Your task to perform on an android device: Empty the shopping cart on amazon.com. Add "duracell triple a" to the cart on amazon.com, then select checkout. Image 0: 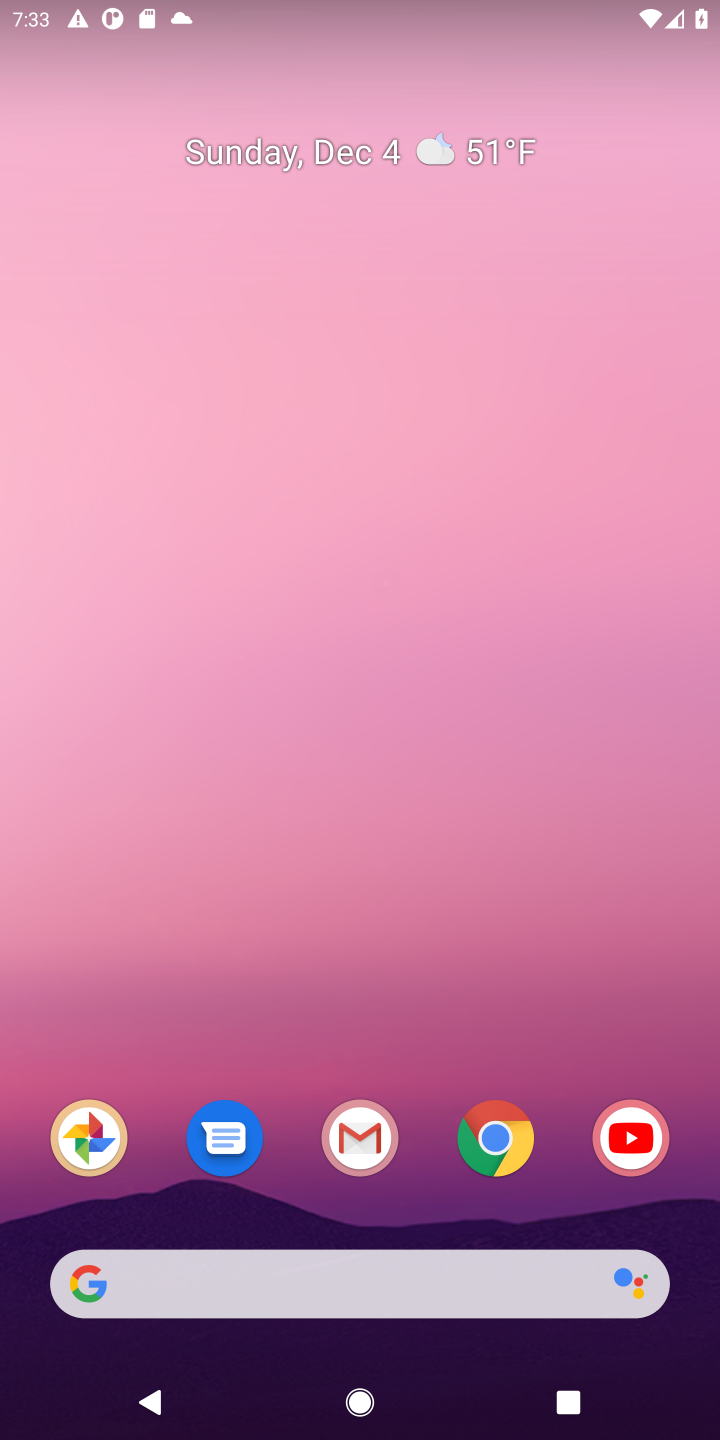
Step 0: click (497, 1146)
Your task to perform on an android device: Empty the shopping cart on amazon.com. Add "duracell triple a" to the cart on amazon.com, then select checkout. Image 1: 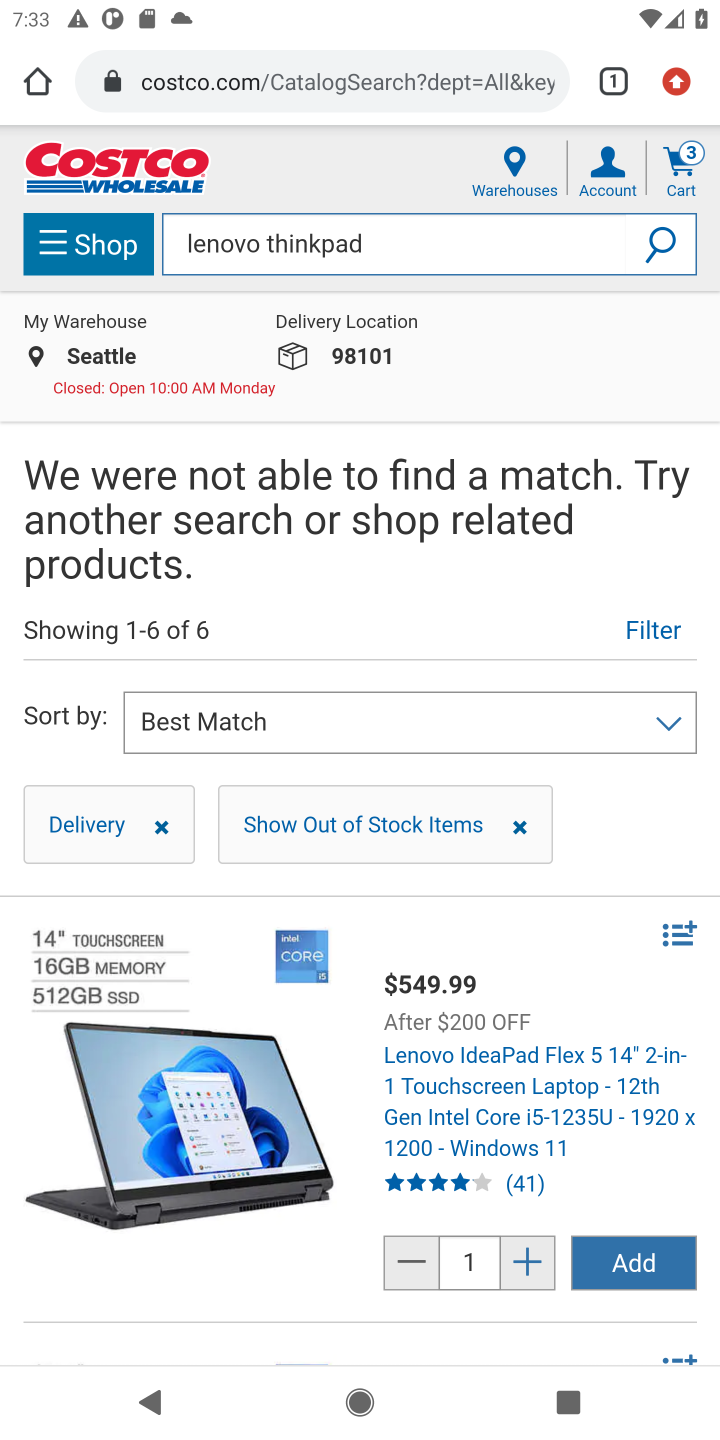
Step 1: click (414, 74)
Your task to perform on an android device: Empty the shopping cart on amazon.com. Add "duracell triple a" to the cart on amazon.com, then select checkout. Image 2: 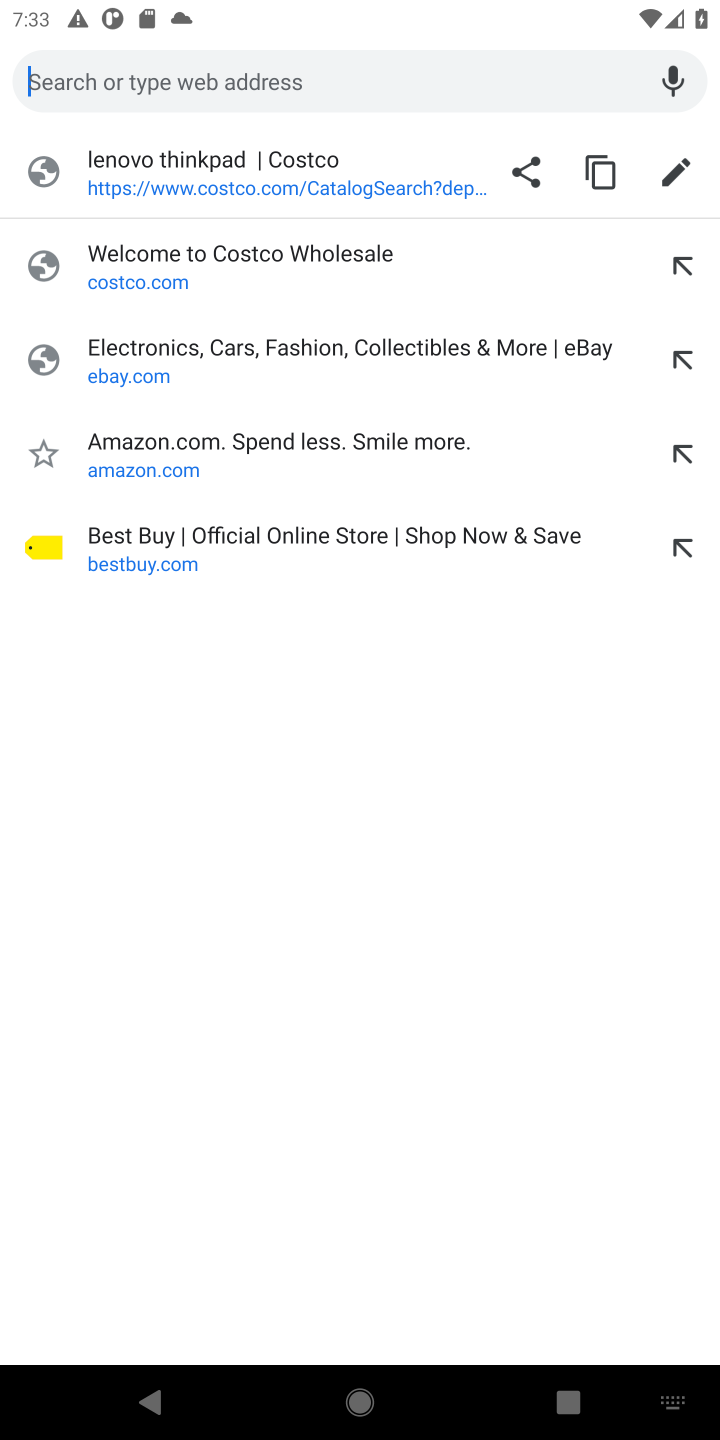
Step 2: click (255, 439)
Your task to perform on an android device: Empty the shopping cart on amazon.com. Add "duracell triple a" to the cart on amazon.com, then select checkout. Image 3: 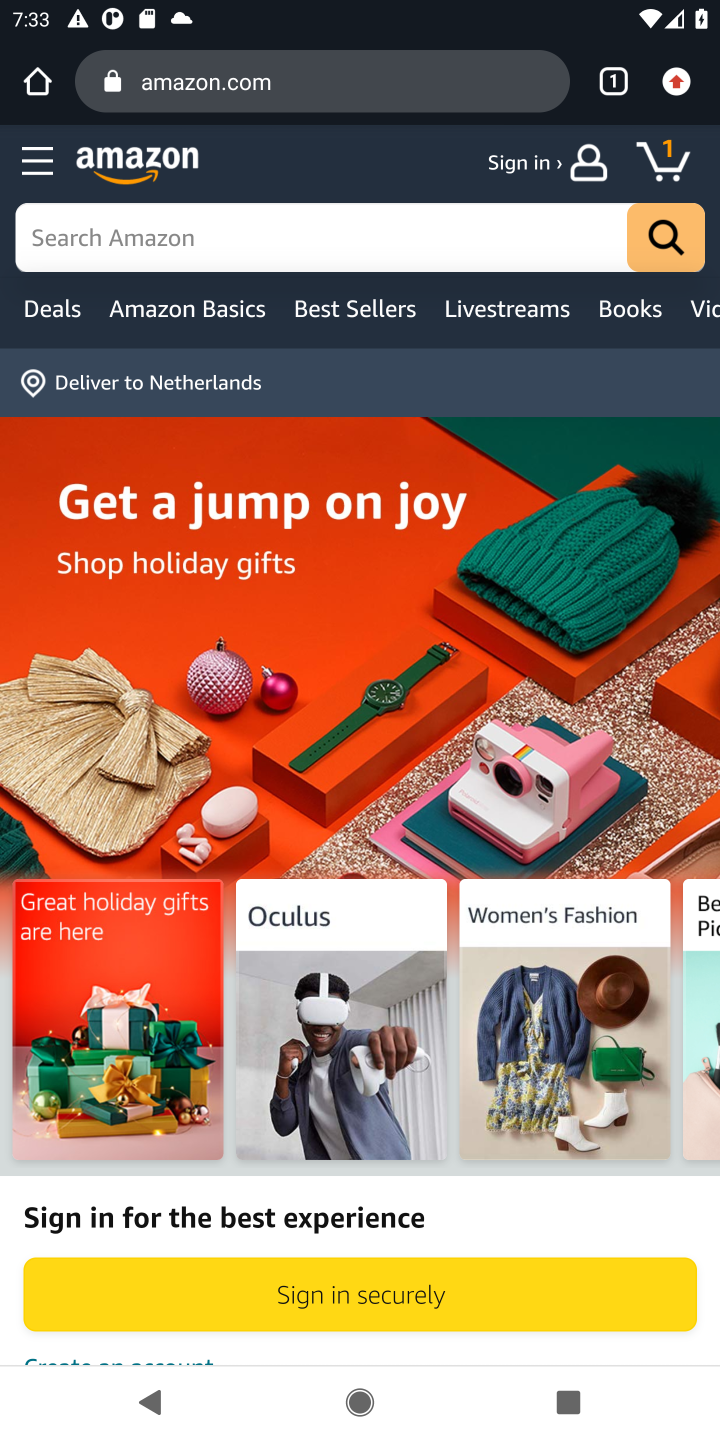
Step 3: click (674, 166)
Your task to perform on an android device: Empty the shopping cart on amazon.com. Add "duracell triple a" to the cart on amazon.com, then select checkout. Image 4: 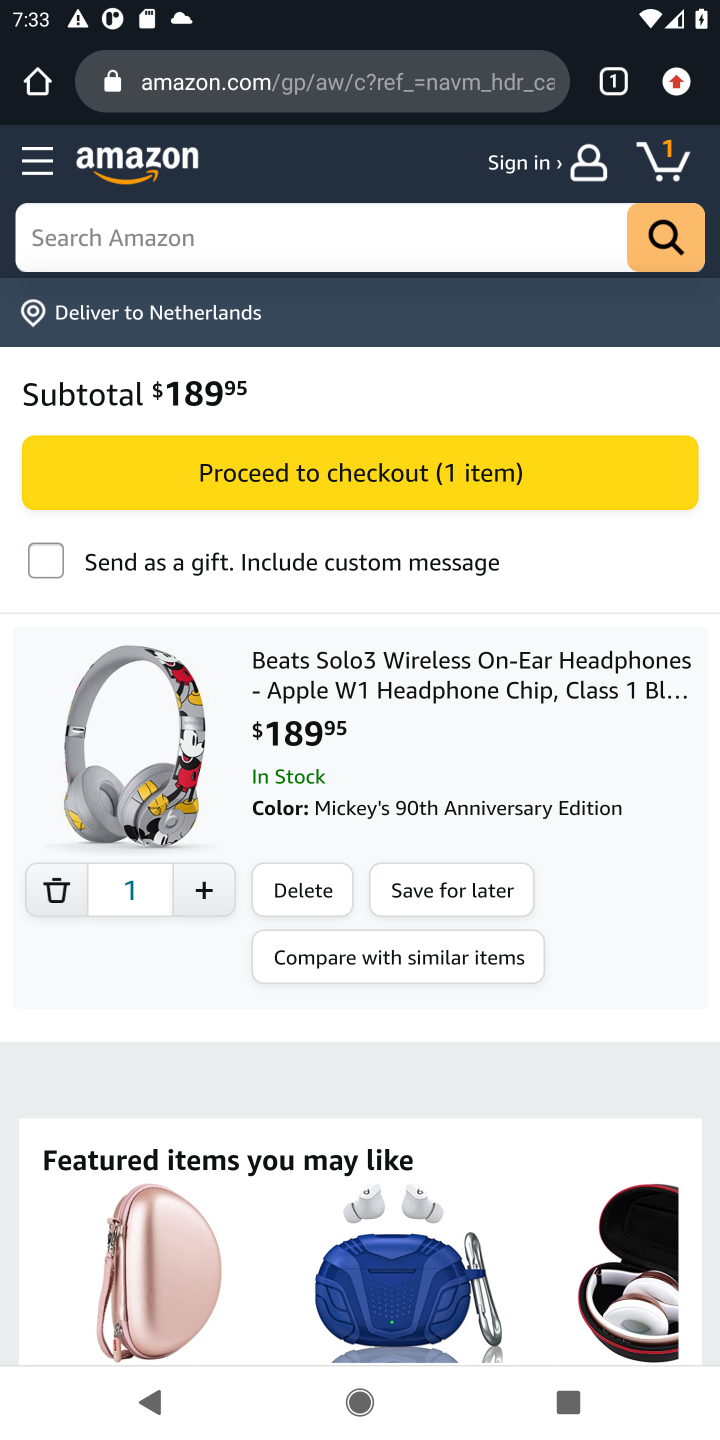
Step 4: click (311, 892)
Your task to perform on an android device: Empty the shopping cart on amazon.com. Add "duracell triple a" to the cart on amazon.com, then select checkout. Image 5: 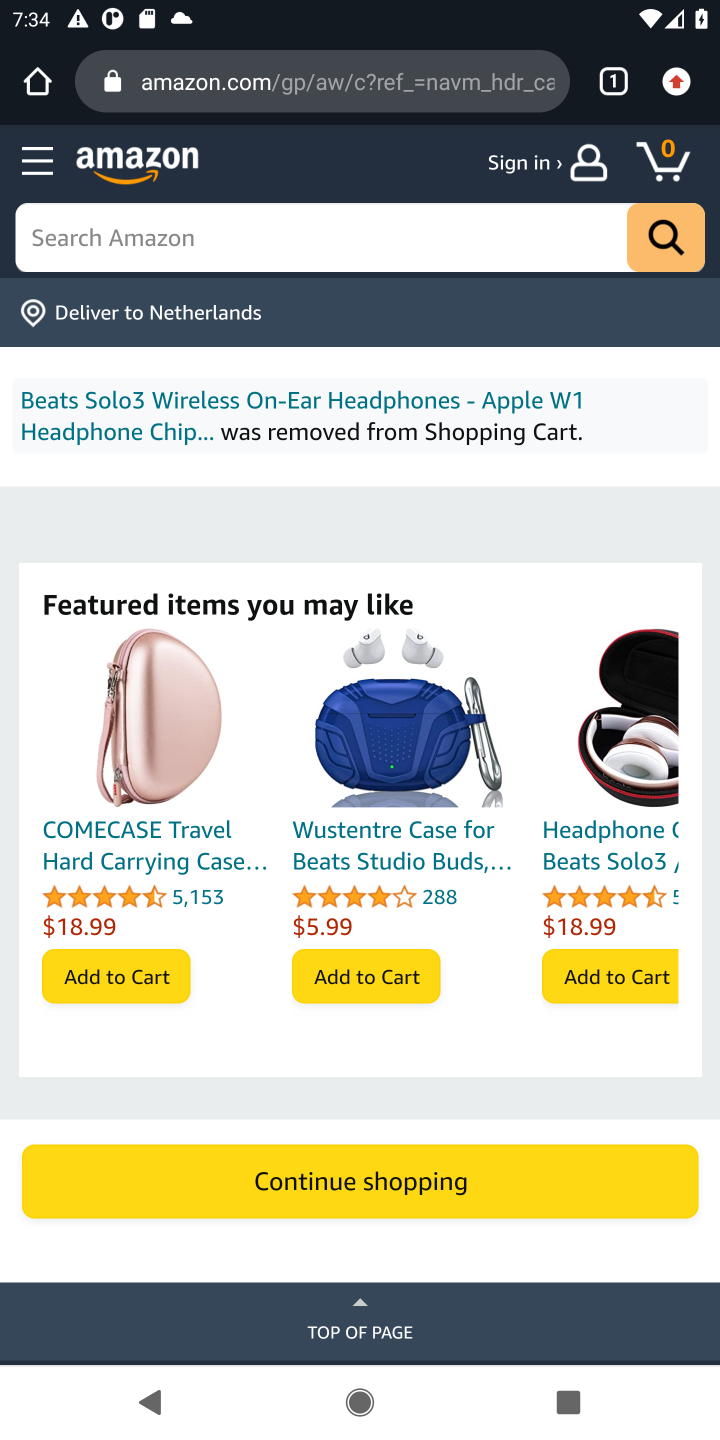
Step 5: click (316, 254)
Your task to perform on an android device: Empty the shopping cart on amazon.com. Add "duracell triple a" to the cart on amazon.com, then select checkout. Image 6: 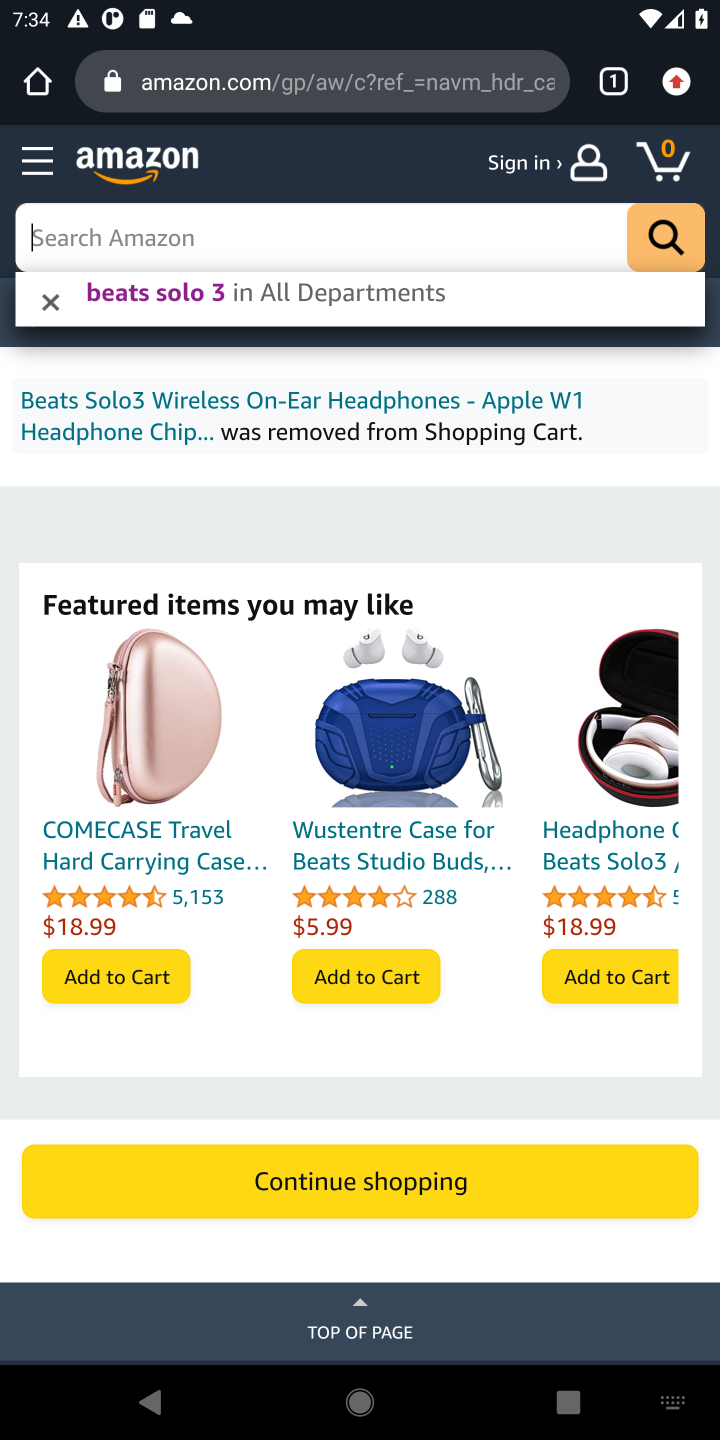
Step 6: type "duracell triple a"
Your task to perform on an android device: Empty the shopping cart on amazon.com. Add "duracell triple a" to the cart on amazon.com, then select checkout. Image 7: 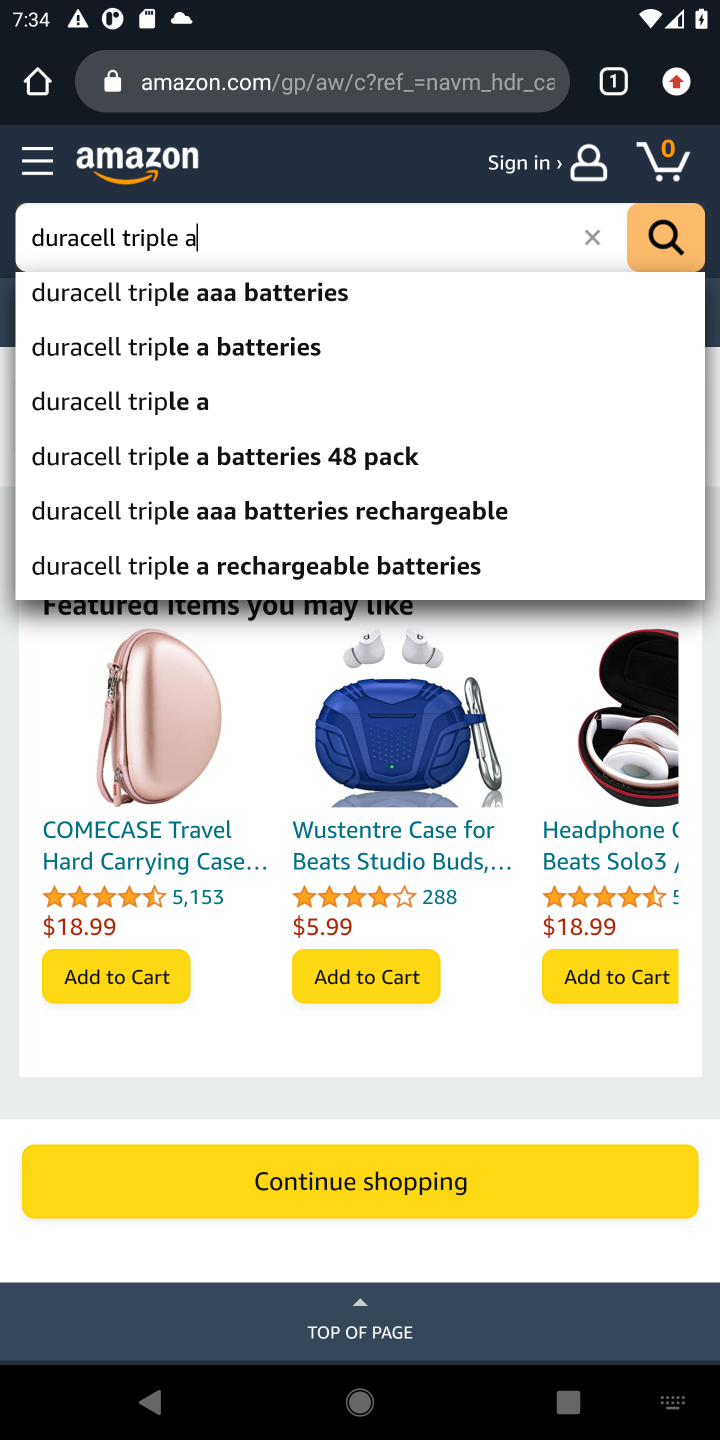
Step 7: press enter
Your task to perform on an android device: Empty the shopping cart on amazon.com. Add "duracell triple a" to the cart on amazon.com, then select checkout. Image 8: 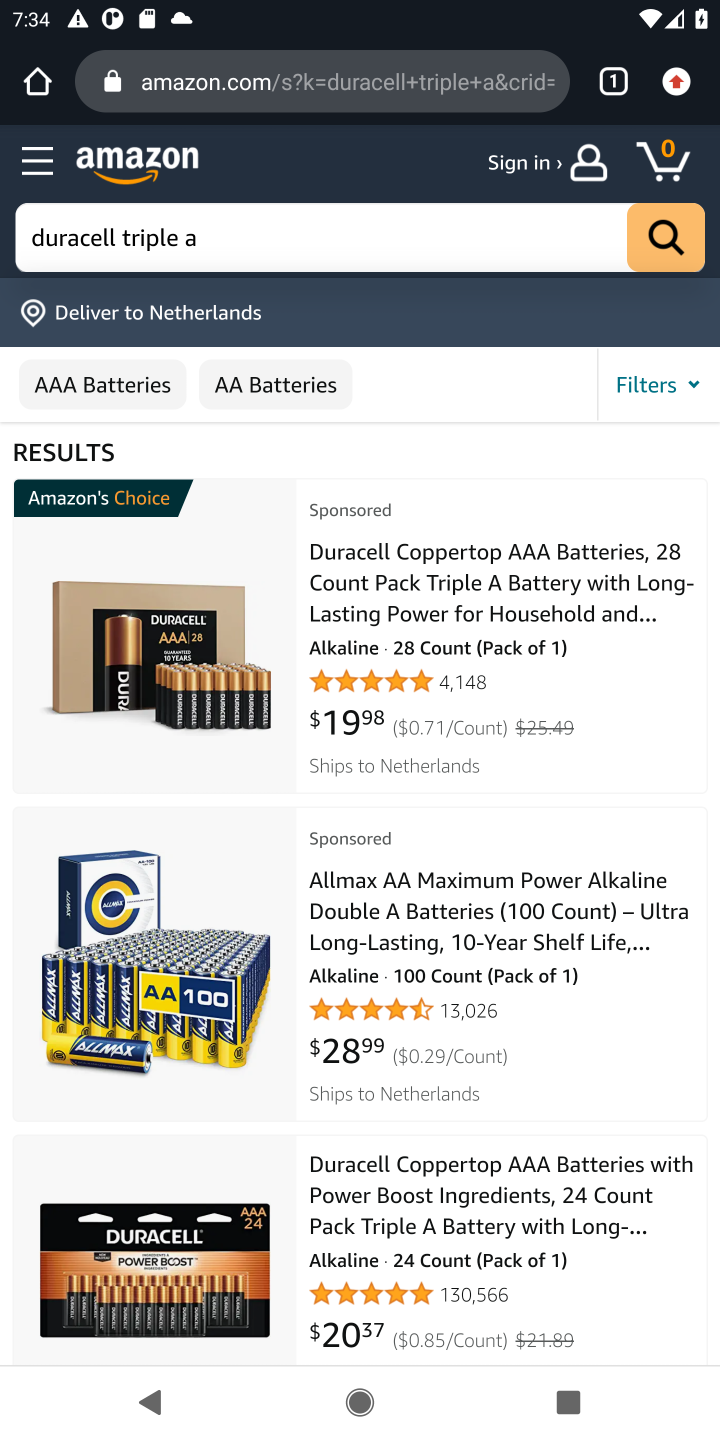
Step 8: click (143, 655)
Your task to perform on an android device: Empty the shopping cart on amazon.com. Add "duracell triple a" to the cart on amazon.com, then select checkout. Image 9: 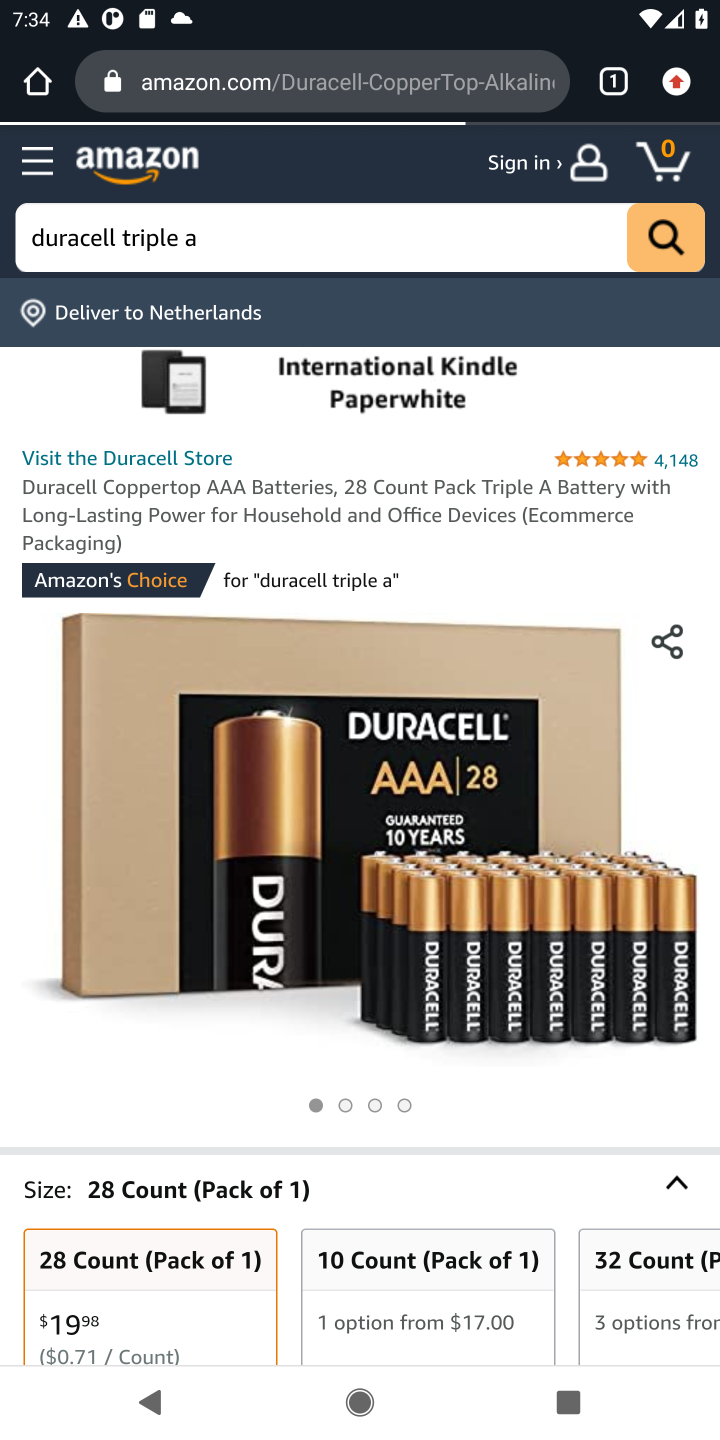
Step 9: drag from (540, 1000) to (541, 333)
Your task to perform on an android device: Empty the shopping cart on amazon.com. Add "duracell triple a" to the cart on amazon.com, then select checkout. Image 10: 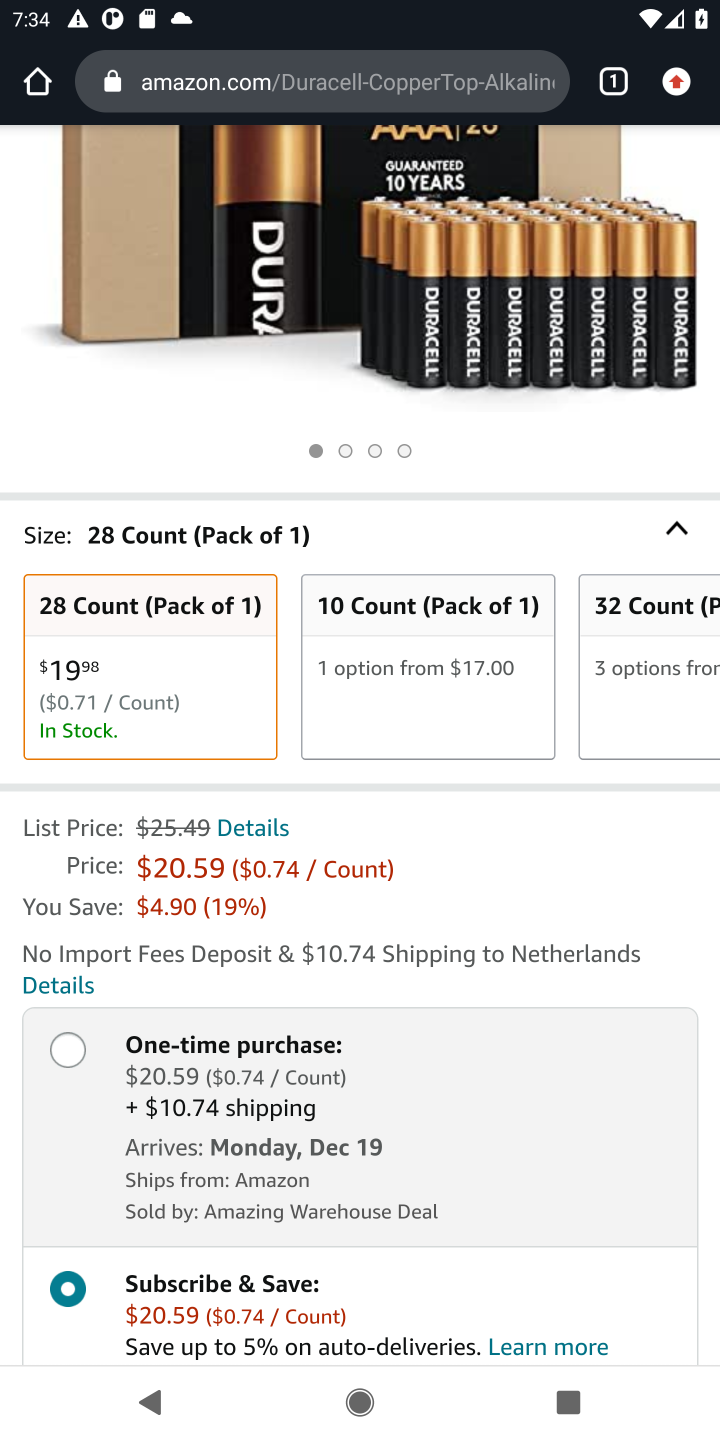
Step 10: drag from (627, 866) to (579, 414)
Your task to perform on an android device: Empty the shopping cart on amazon.com. Add "duracell triple a" to the cart on amazon.com, then select checkout. Image 11: 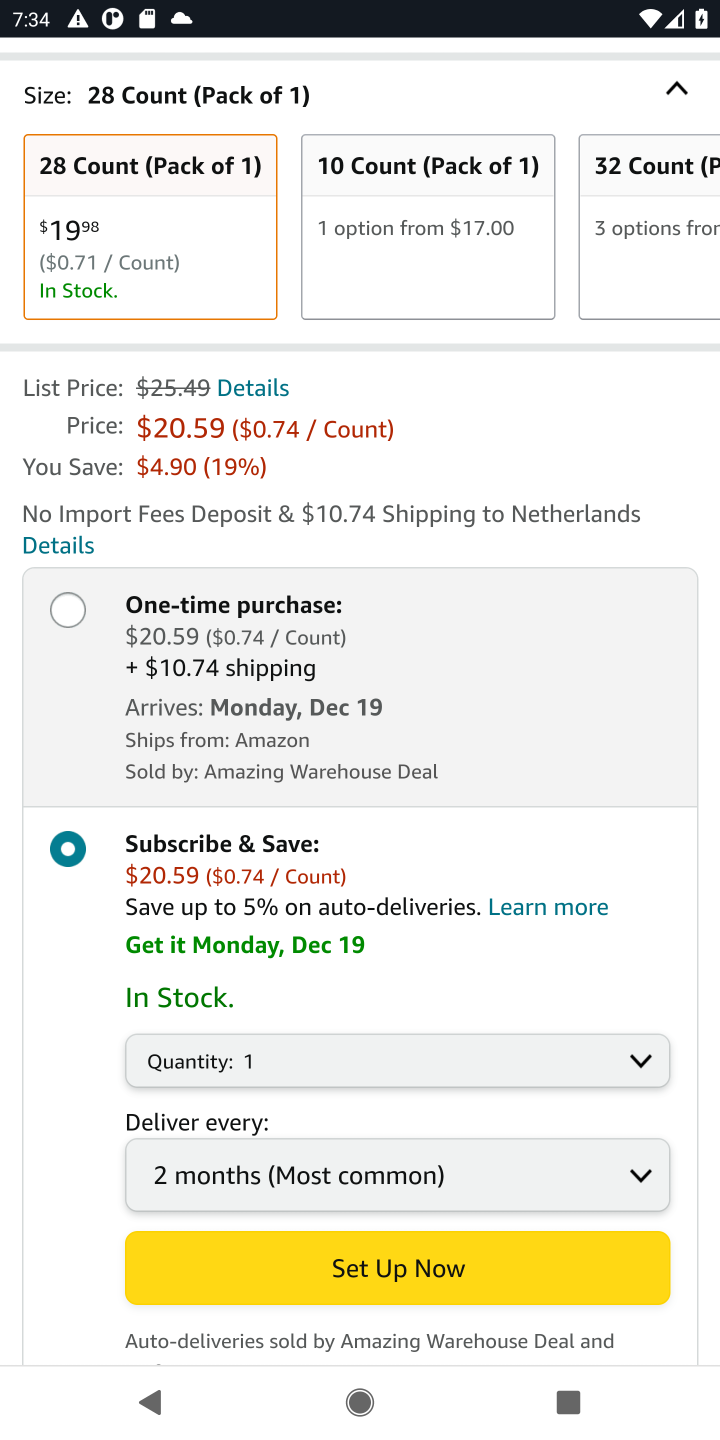
Step 11: press back button
Your task to perform on an android device: Empty the shopping cart on amazon.com. Add "duracell triple a" to the cart on amazon.com, then select checkout. Image 12: 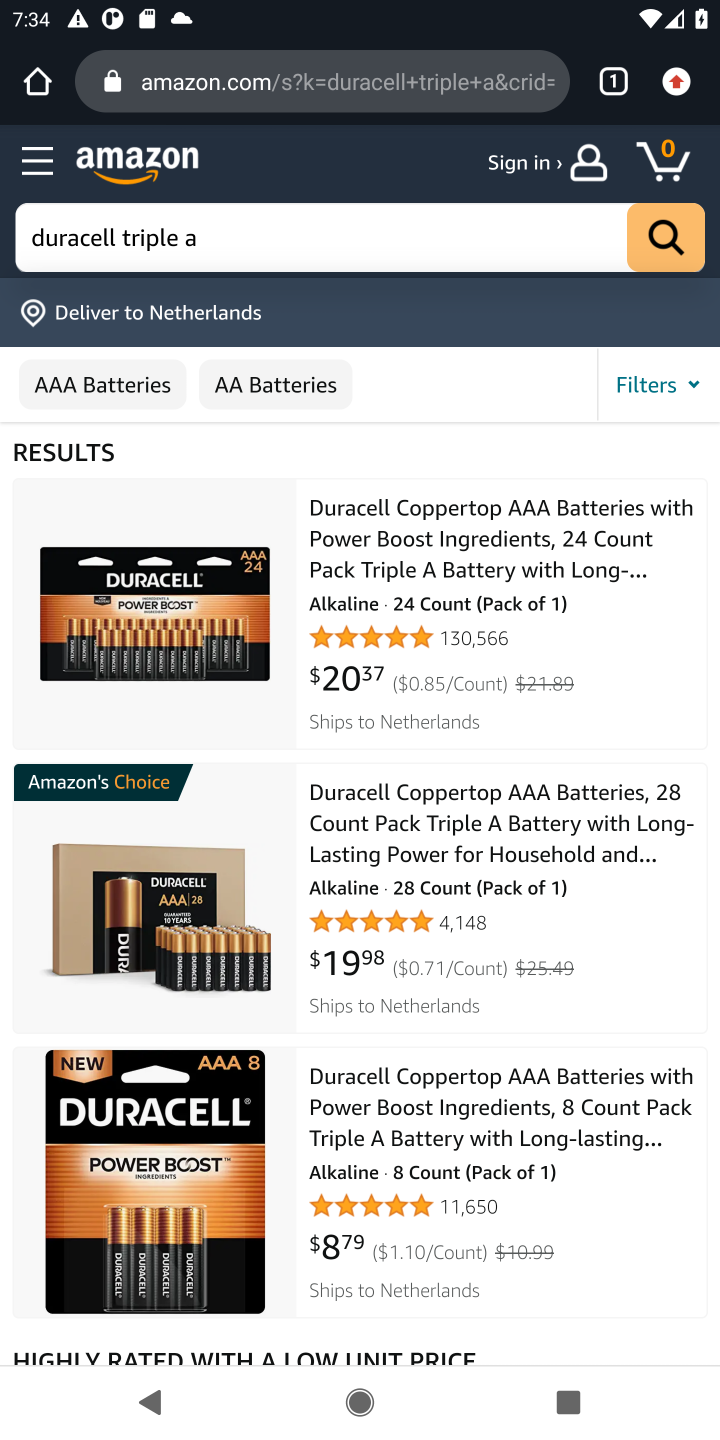
Step 12: click (106, 896)
Your task to perform on an android device: Empty the shopping cart on amazon.com. Add "duracell triple a" to the cart on amazon.com, then select checkout. Image 13: 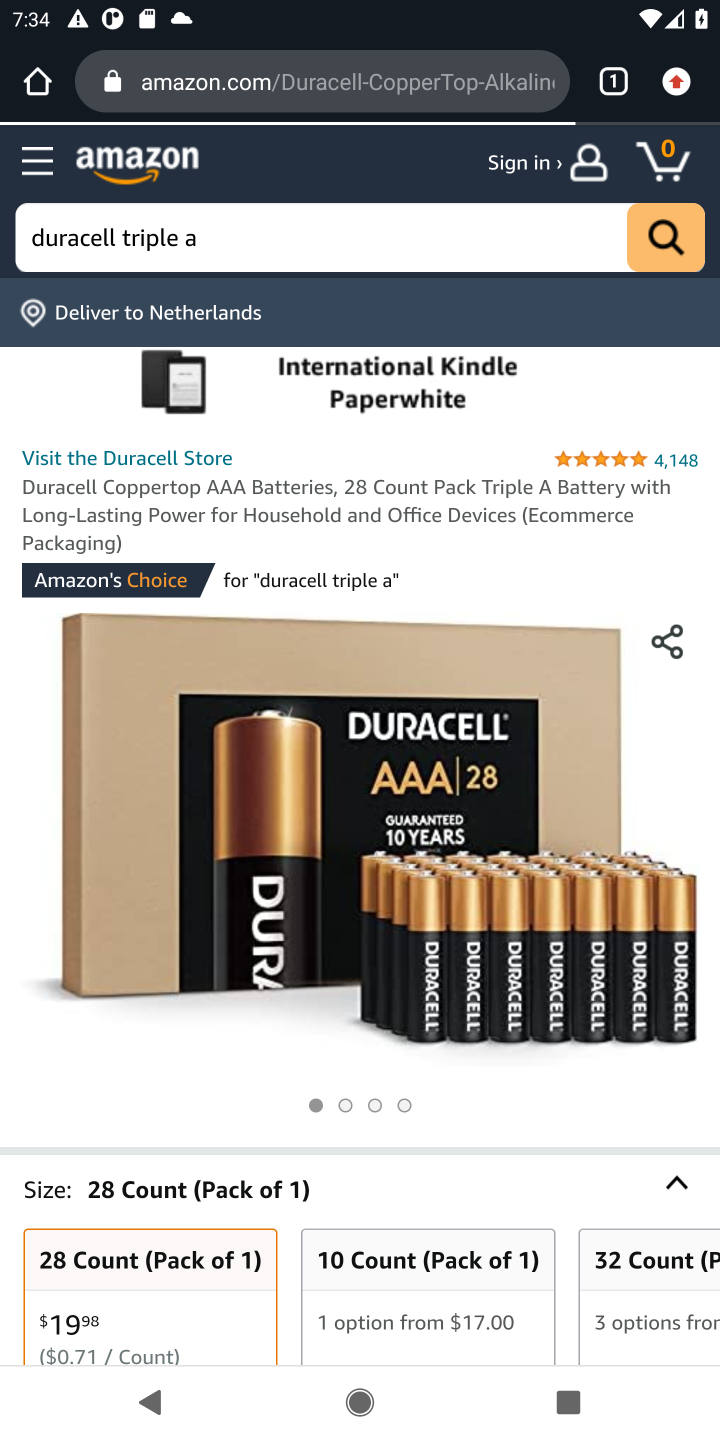
Step 13: drag from (608, 1054) to (626, 371)
Your task to perform on an android device: Empty the shopping cart on amazon.com. Add "duracell triple a" to the cart on amazon.com, then select checkout. Image 14: 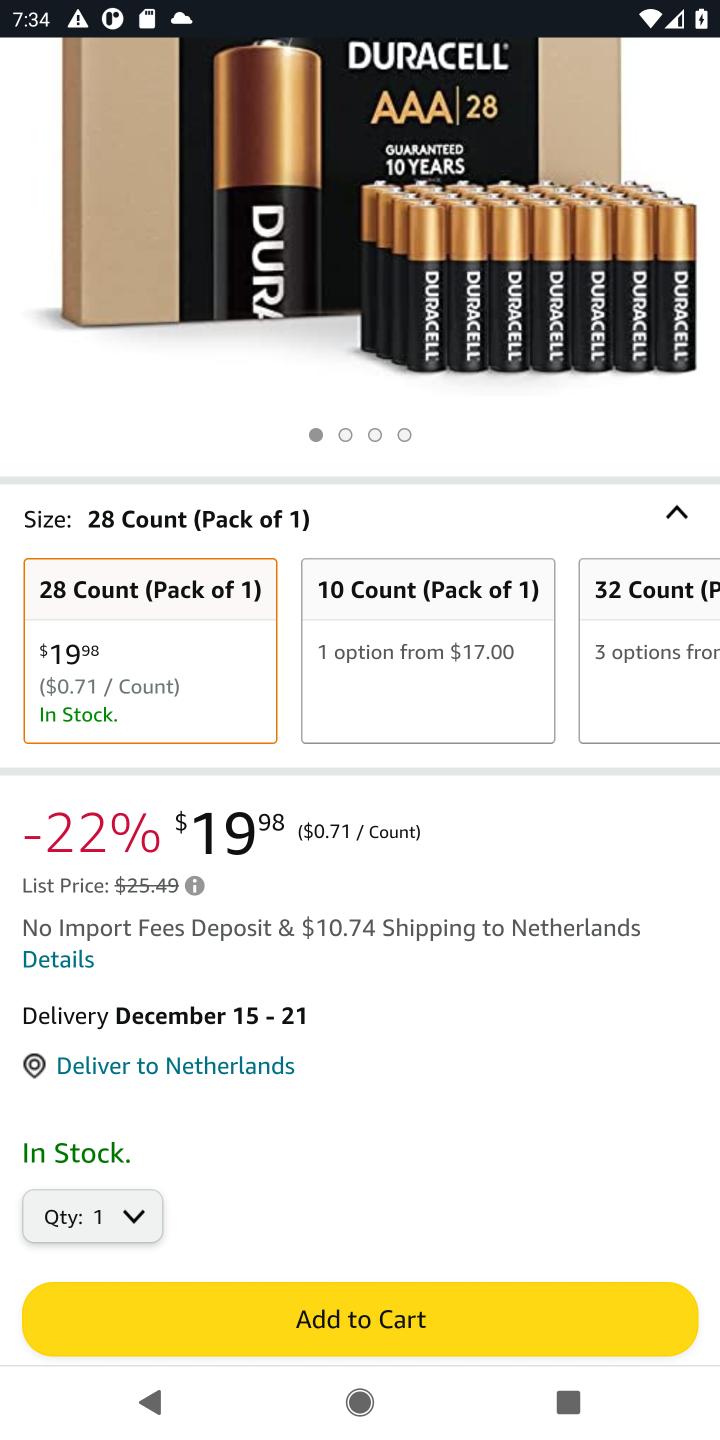
Step 14: click (394, 1314)
Your task to perform on an android device: Empty the shopping cart on amazon.com. Add "duracell triple a" to the cart on amazon.com, then select checkout. Image 15: 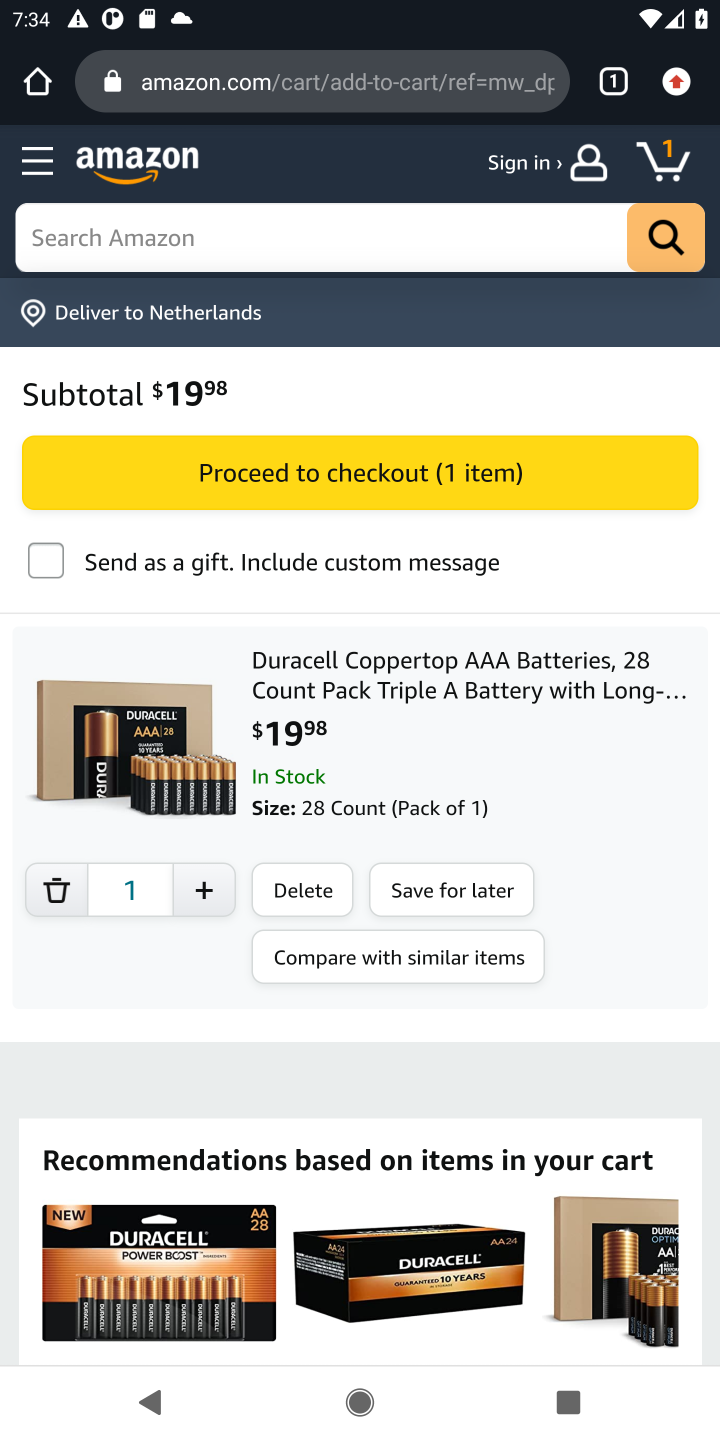
Step 15: click (345, 472)
Your task to perform on an android device: Empty the shopping cart on amazon.com. Add "duracell triple a" to the cart on amazon.com, then select checkout. Image 16: 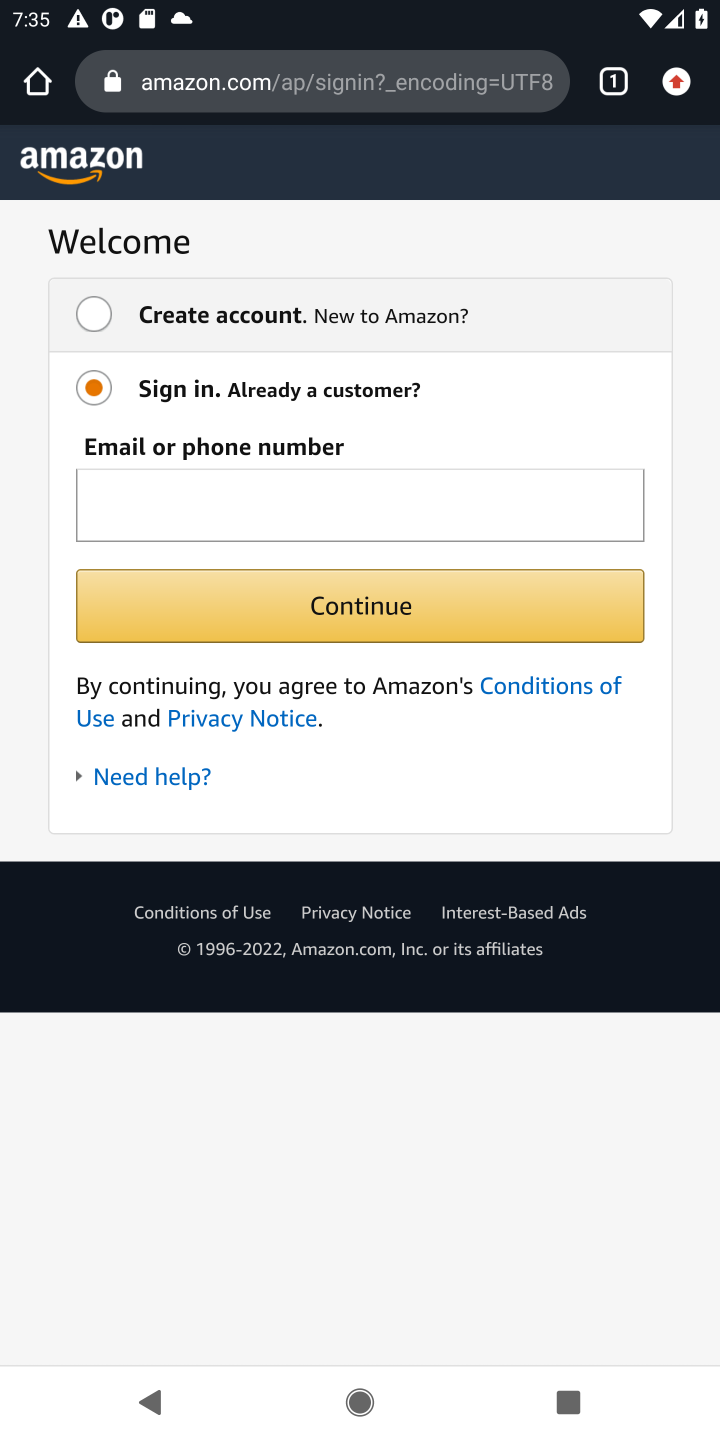
Step 16: task complete